Your task to perform on an android device: turn off translation in the chrome app Image 0: 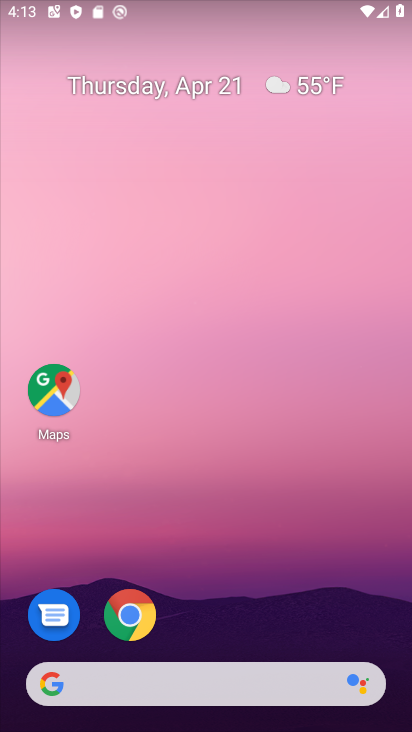
Step 0: drag from (339, 593) to (210, 24)
Your task to perform on an android device: turn off translation in the chrome app Image 1: 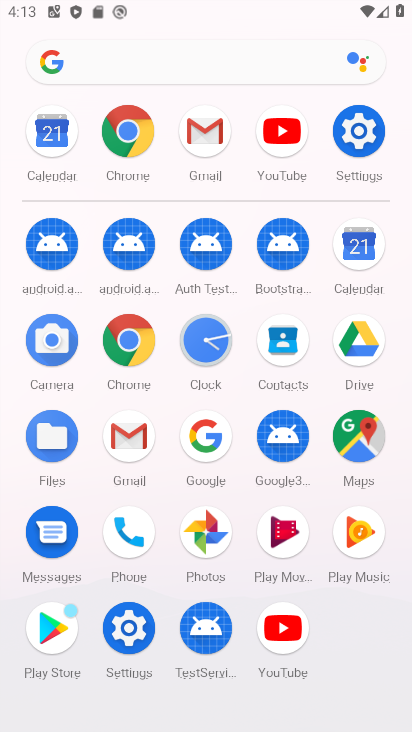
Step 1: drag from (1, 504) to (16, 154)
Your task to perform on an android device: turn off translation in the chrome app Image 2: 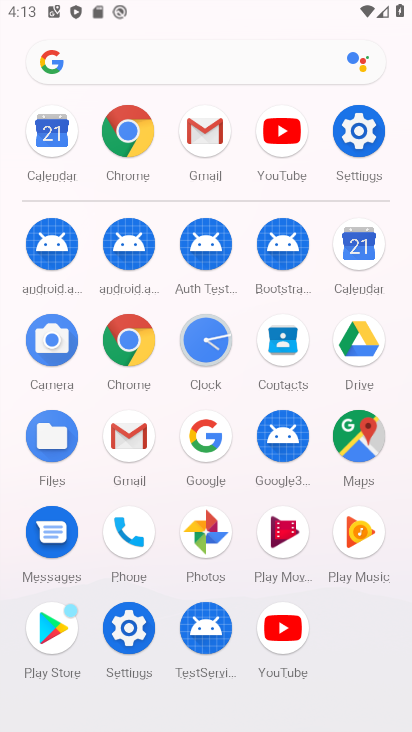
Step 2: click (129, 339)
Your task to perform on an android device: turn off translation in the chrome app Image 3: 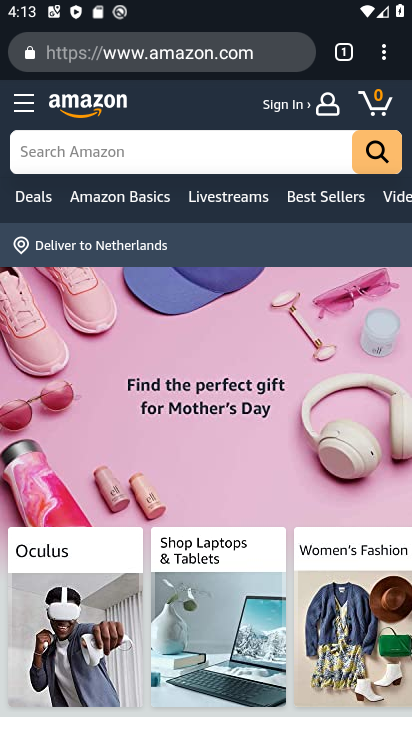
Step 3: drag from (380, 56) to (213, 667)
Your task to perform on an android device: turn off translation in the chrome app Image 4: 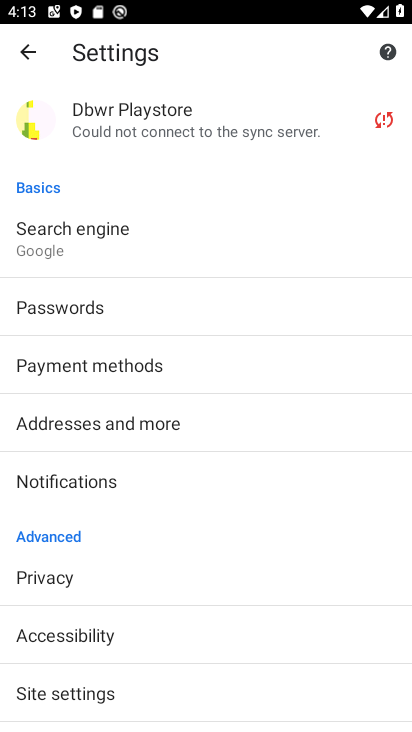
Step 4: drag from (210, 427) to (207, 238)
Your task to perform on an android device: turn off translation in the chrome app Image 5: 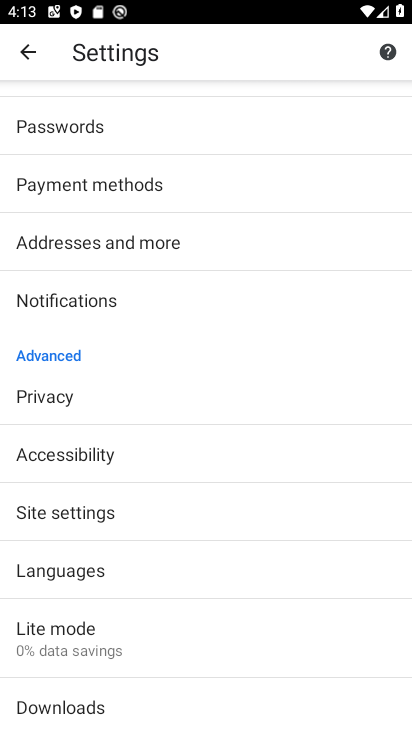
Step 5: drag from (184, 512) to (191, 208)
Your task to perform on an android device: turn off translation in the chrome app Image 6: 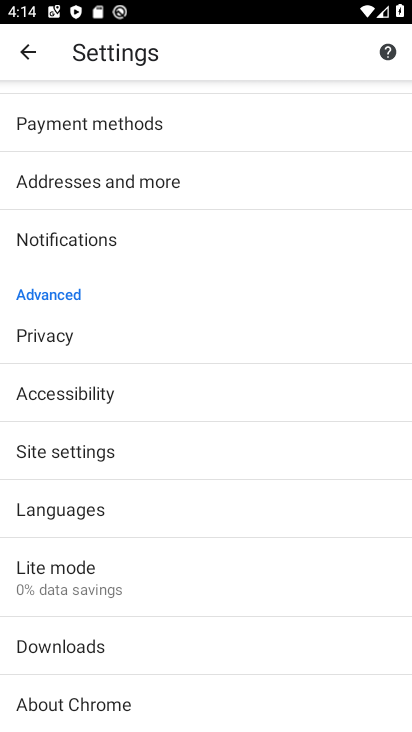
Step 6: click (107, 504)
Your task to perform on an android device: turn off translation in the chrome app Image 7: 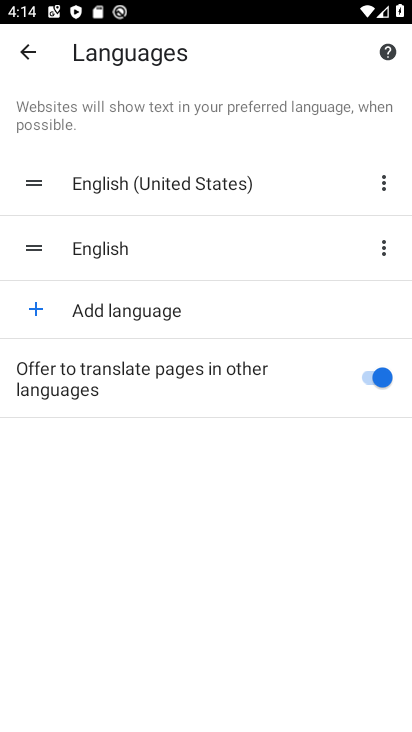
Step 7: click (369, 379)
Your task to perform on an android device: turn off translation in the chrome app Image 8: 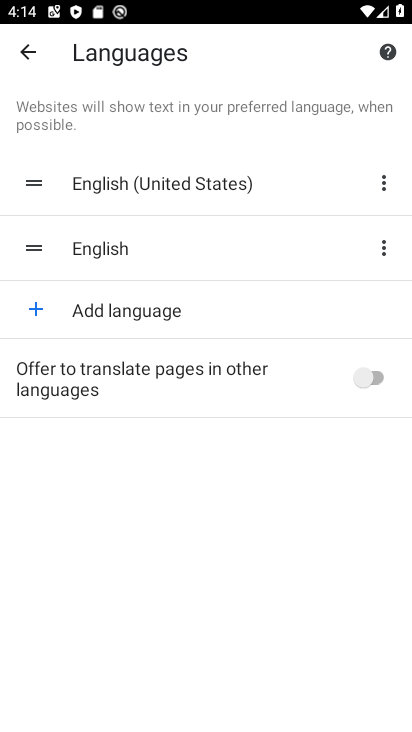
Step 8: task complete